Your task to perform on an android device: Go to display settings Image 0: 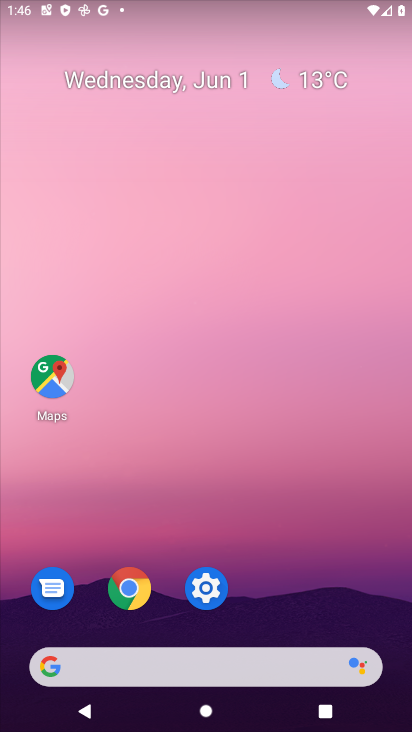
Step 0: click (208, 589)
Your task to perform on an android device: Go to display settings Image 1: 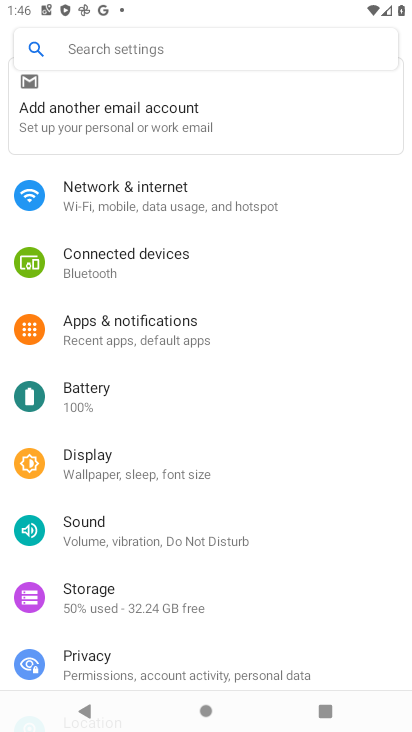
Step 1: click (114, 450)
Your task to perform on an android device: Go to display settings Image 2: 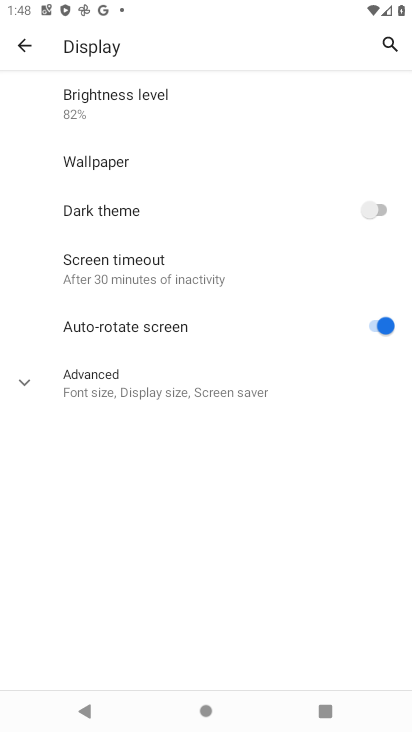
Step 2: task complete